Your task to perform on an android device: turn pop-ups off in chrome Image 0: 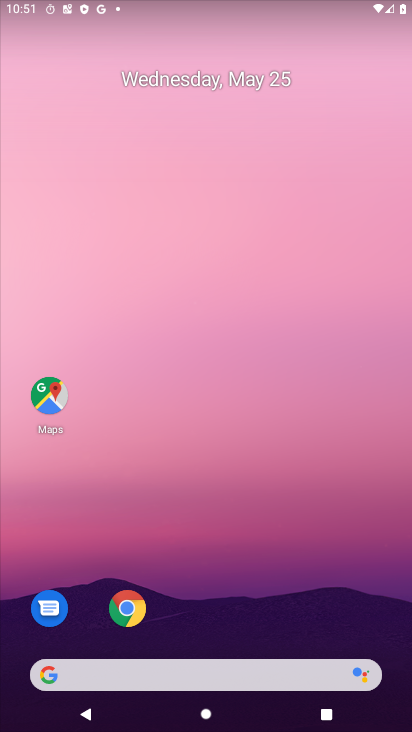
Step 0: click (128, 609)
Your task to perform on an android device: turn pop-ups off in chrome Image 1: 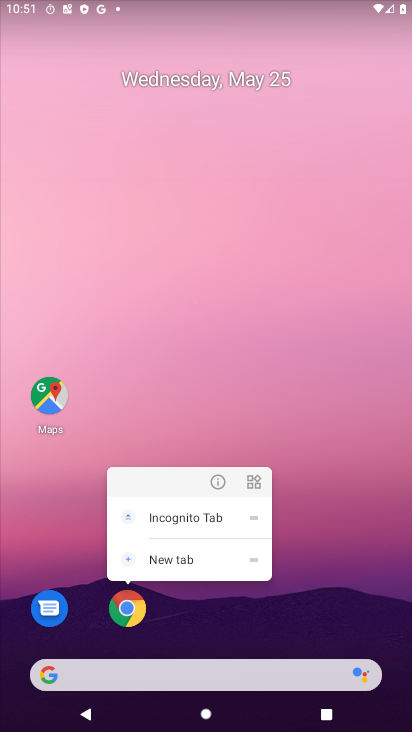
Step 1: click (133, 608)
Your task to perform on an android device: turn pop-ups off in chrome Image 2: 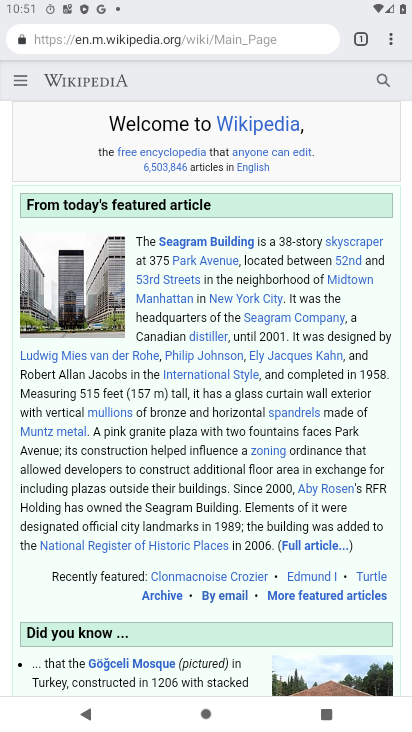
Step 2: click (389, 39)
Your task to perform on an android device: turn pop-ups off in chrome Image 3: 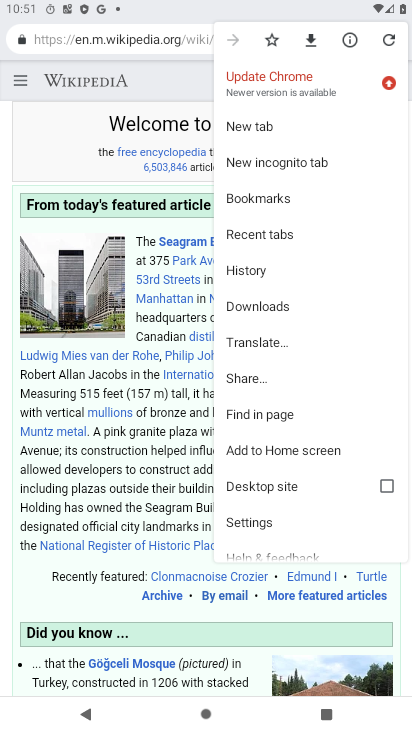
Step 3: click (268, 524)
Your task to perform on an android device: turn pop-ups off in chrome Image 4: 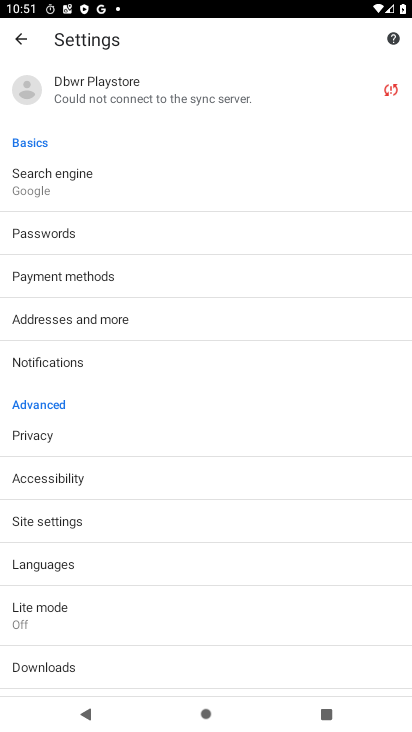
Step 4: click (59, 522)
Your task to perform on an android device: turn pop-ups off in chrome Image 5: 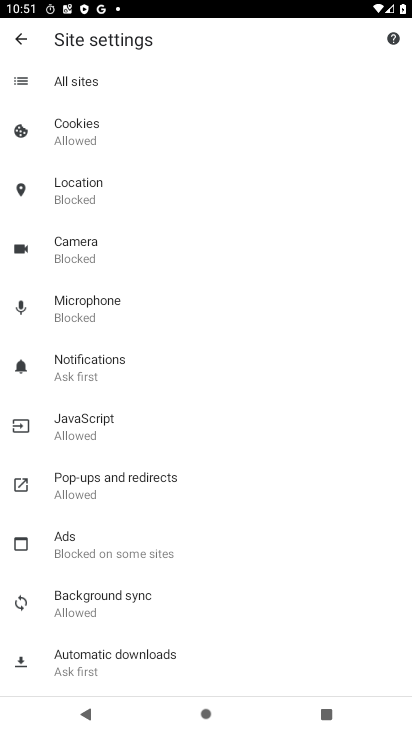
Step 5: click (117, 477)
Your task to perform on an android device: turn pop-ups off in chrome Image 6: 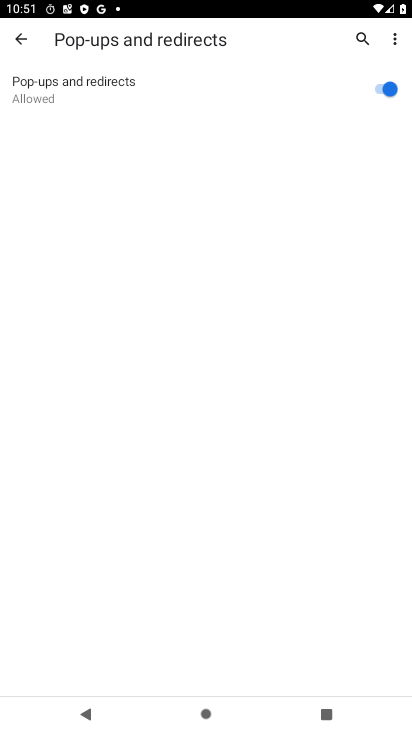
Step 6: click (394, 94)
Your task to perform on an android device: turn pop-ups off in chrome Image 7: 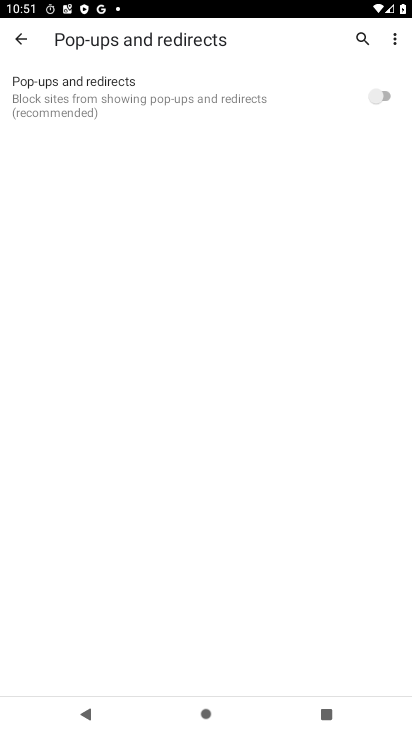
Step 7: task complete